Your task to perform on an android device: turn off priority inbox in the gmail app Image 0: 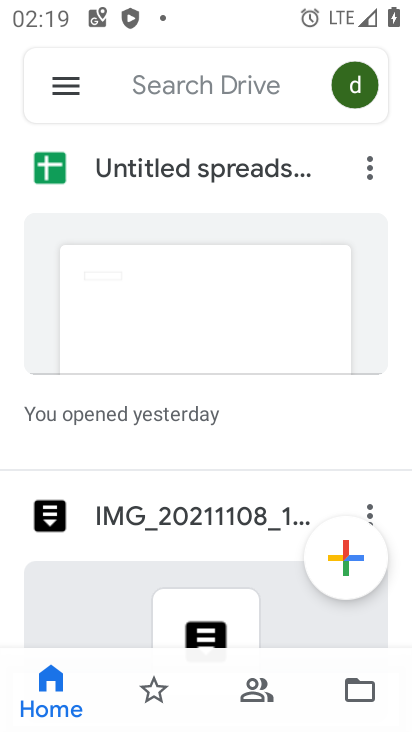
Step 0: press home button
Your task to perform on an android device: turn off priority inbox in the gmail app Image 1: 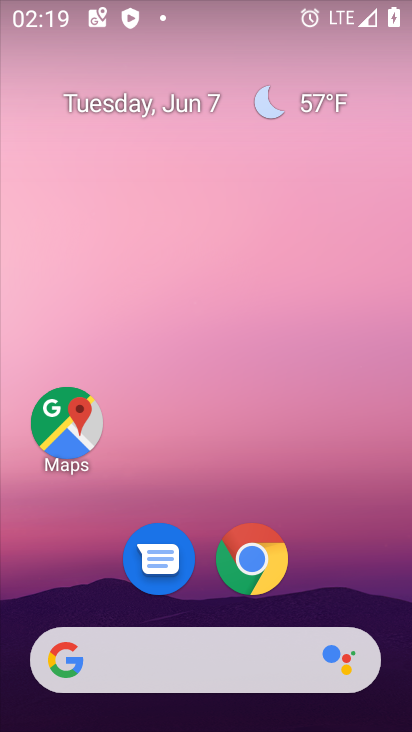
Step 1: drag from (352, 569) to (339, 323)
Your task to perform on an android device: turn off priority inbox in the gmail app Image 2: 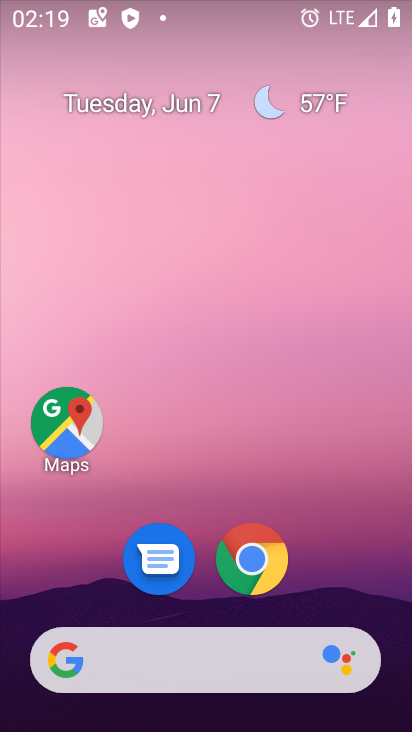
Step 2: drag from (337, 599) to (287, 101)
Your task to perform on an android device: turn off priority inbox in the gmail app Image 3: 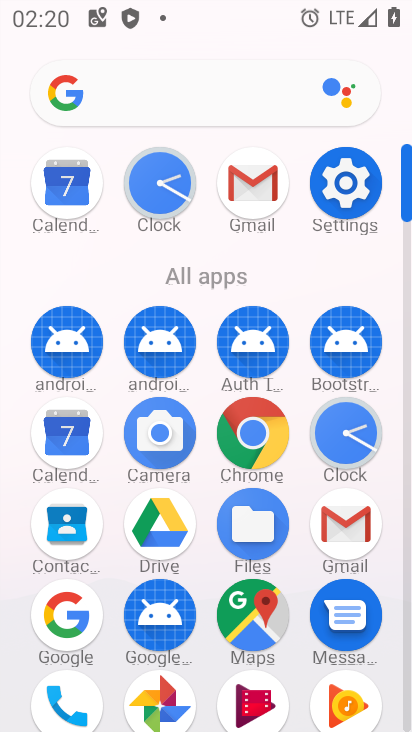
Step 3: click (249, 174)
Your task to perform on an android device: turn off priority inbox in the gmail app Image 4: 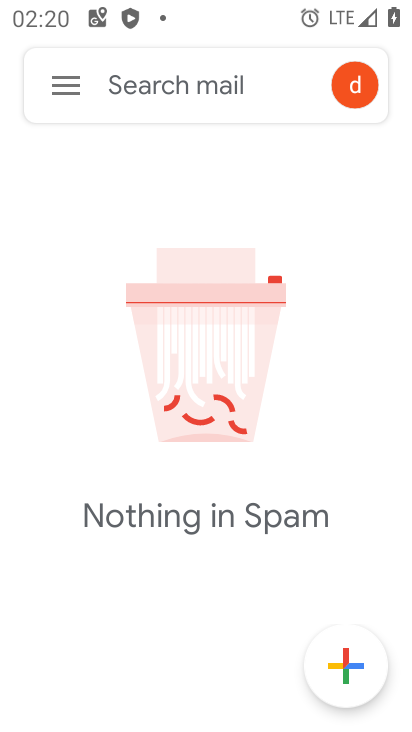
Step 4: click (75, 86)
Your task to perform on an android device: turn off priority inbox in the gmail app Image 5: 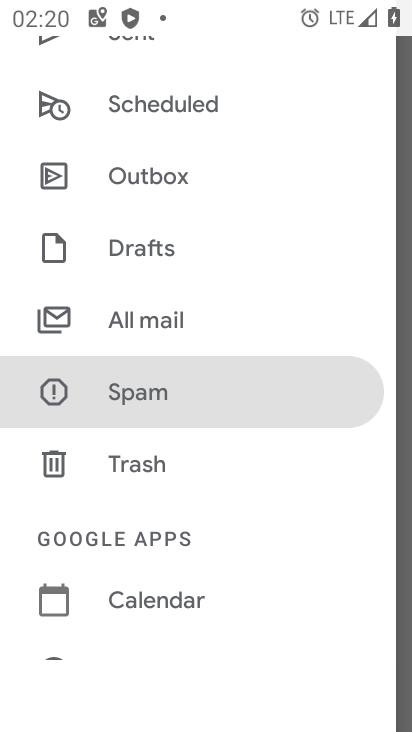
Step 5: drag from (217, 472) to (295, 333)
Your task to perform on an android device: turn off priority inbox in the gmail app Image 6: 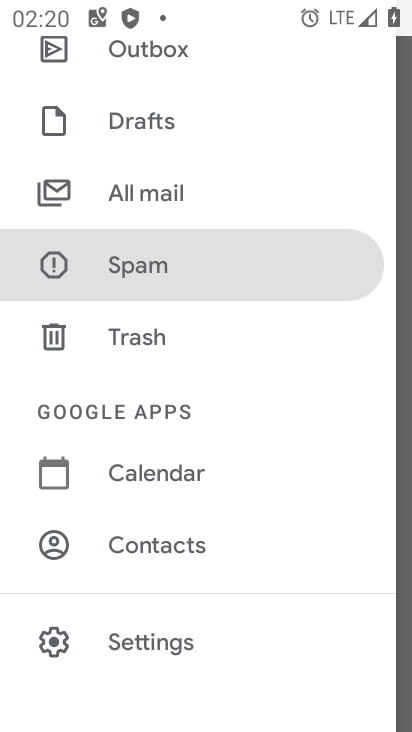
Step 6: drag from (212, 507) to (300, 378)
Your task to perform on an android device: turn off priority inbox in the gmail app Image 7: 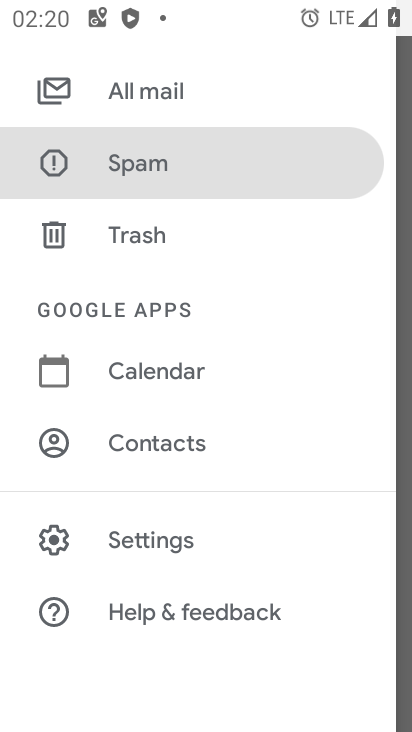
Step 7: click (190, 547)
Your task to perform on an android device: turn off priority inbox in the gmail app Image 8: 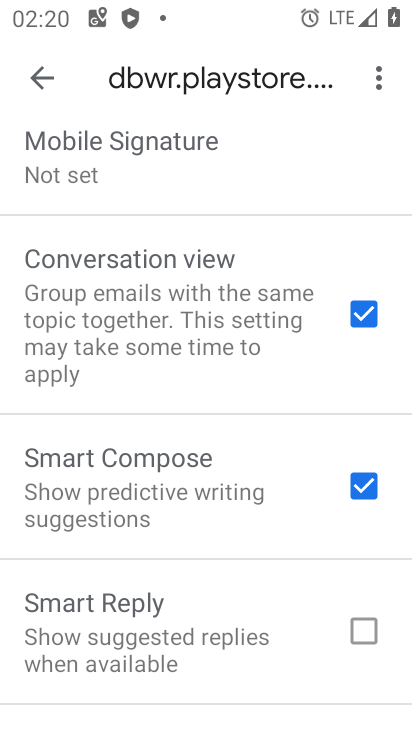
Step 8: drag from (182, 168) to (193, 461)
Your task to perform on an android device: turn off priority inbox in the gmail app Image 9: 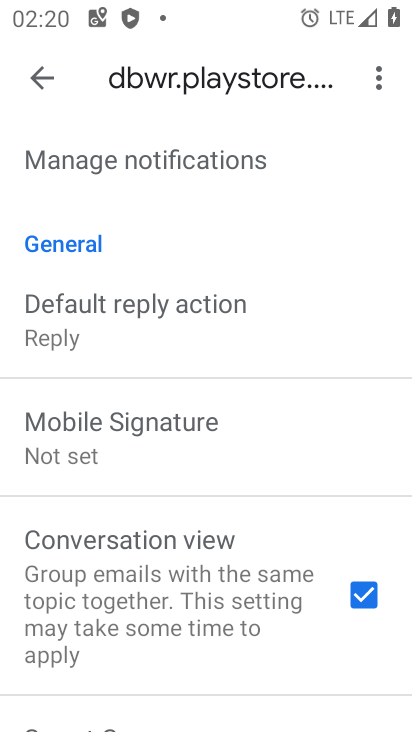
Step 9: drag from (193, 259) to (218, 565)
Your task to perform on an android device: turn off priority inbox in the gmail app Image 10: 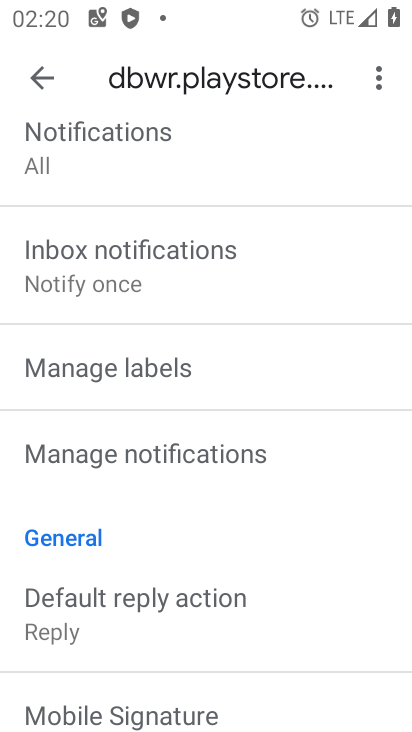
Step 10: drag from (262, 265) to (231, 548)
Your task to perform on an android device: turn off priority inbox in the gmail app Image 11: 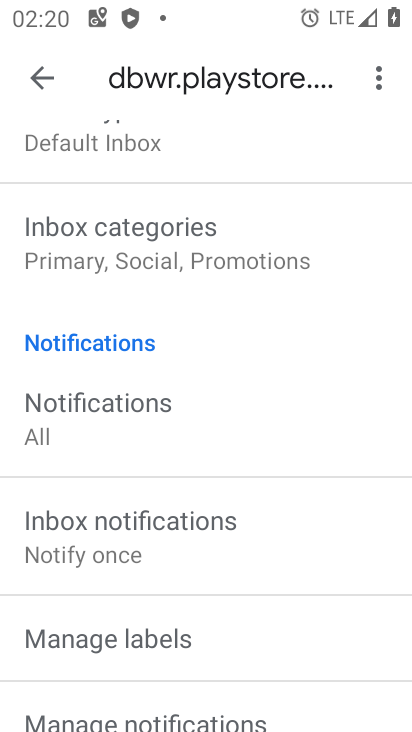
Step 11: drag from (229, 291) to (254, 390)
Your task to perform on an android device: turn off priority inbox in the gmail app Image 12: 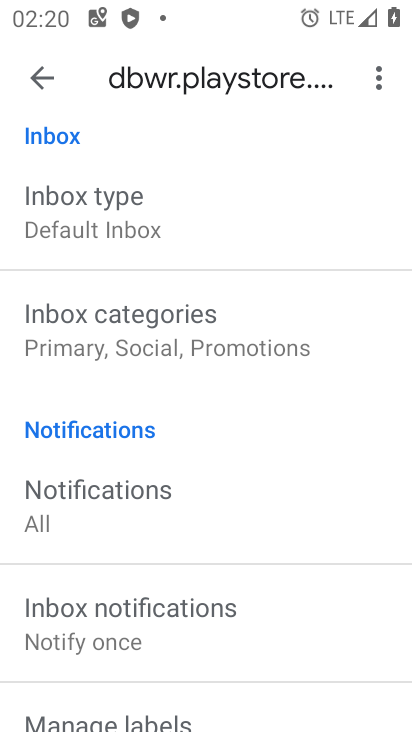
Step 12: click (130, 225)
Your task to perform on an android device: turn off priority inbox in the gmail app Image 13: 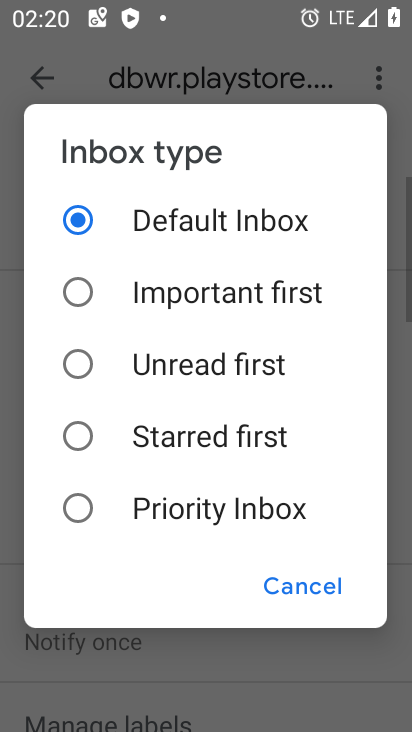
Step 13: click (84, 213)
Your task to perform on an android device: turn off priority inbox in the gmail app Image 14: 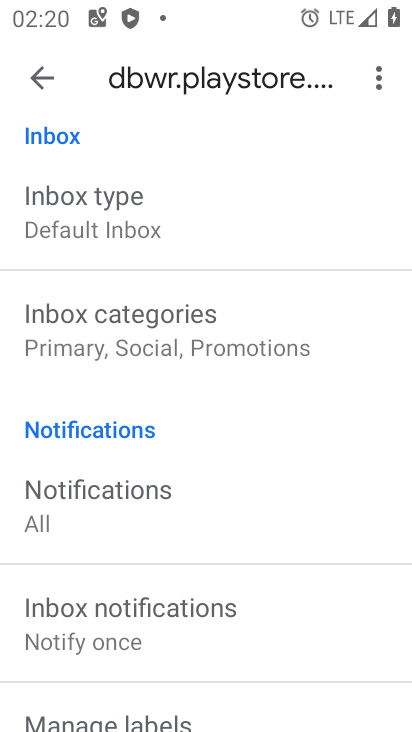
Step 14: task complete